Your task to perform on an android device: Go to Android settings Image 0: 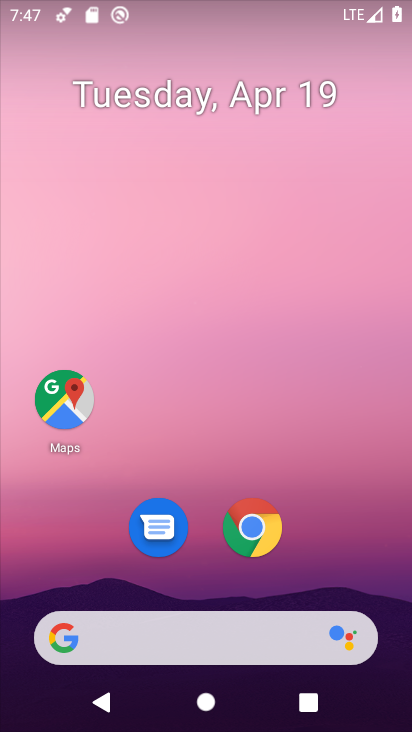
Step 0: drag from (304, 213) to (308, 162)
Your task to perform on an android device: Go to Android settings Image 1: 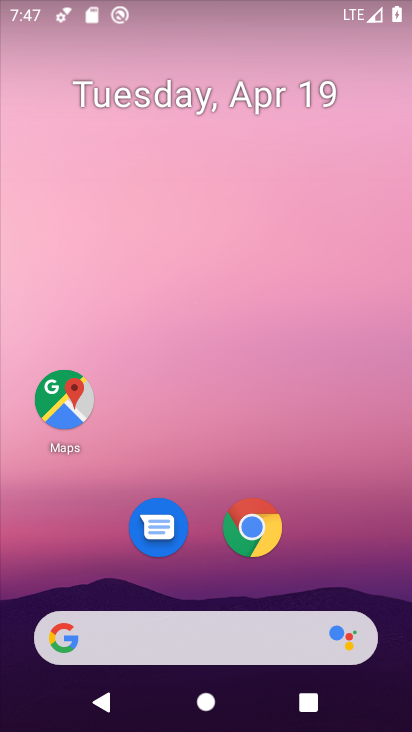
Step 1: drag from (377, 546) to (312, 121)
Your task to perform on an android device: Go to Android settings Image 2: 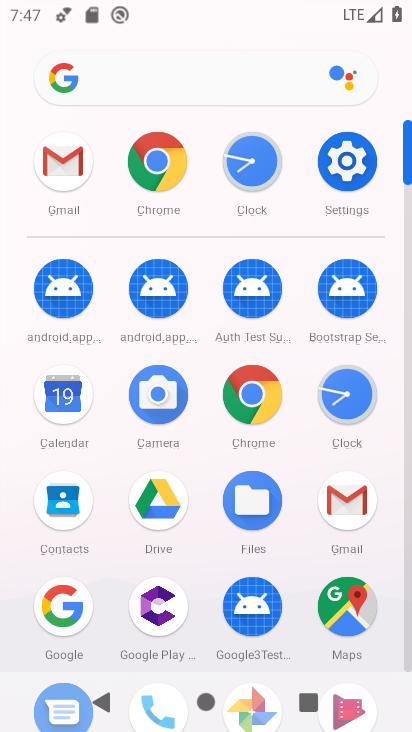
Step 2: click (338, 170)
Your task to perform on an android device: Go to Android settings Image 3: 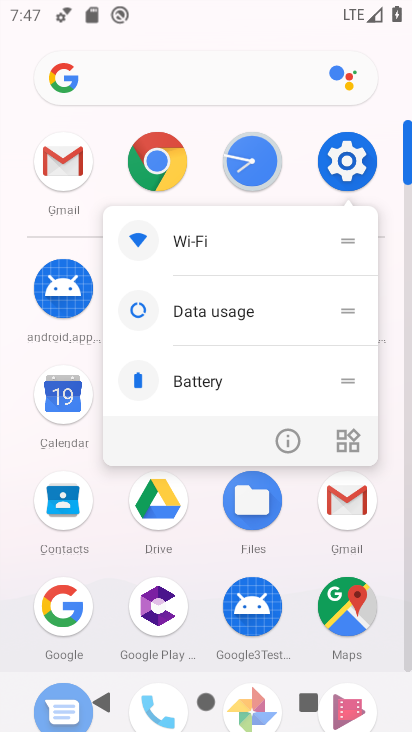
Step 3: click (348, 186)
Your task to perform on an android device: Go to Android settings Image 4: 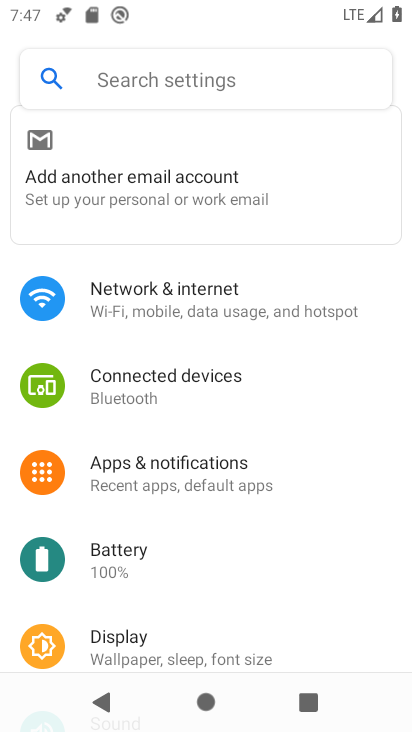
Step 4: task complete